Your task to perform on an android device: Open maps Image 0: 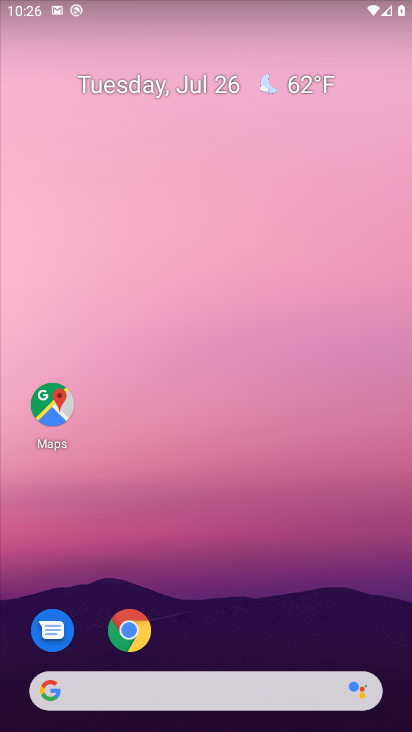
Step 0: press home button
Your task to perform on an android device: Open maps Image 1: 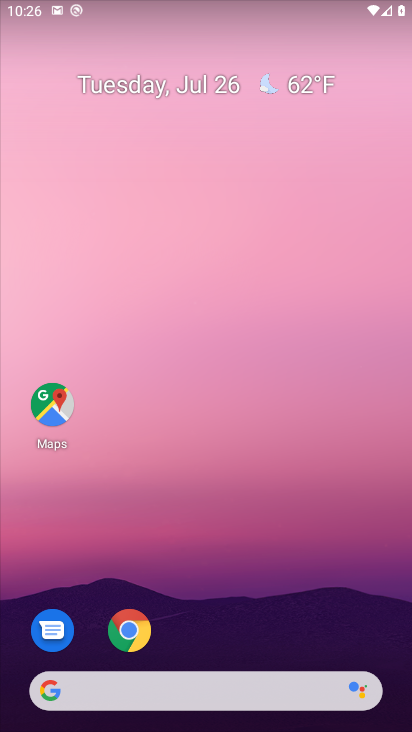
Step 1: click (51, 399)
Your task to perform on an android device: Open maps Image 2: 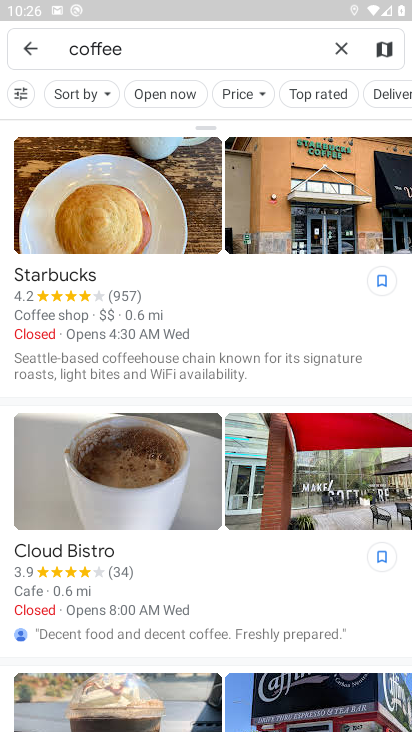
Step 2: click (26, 55)
Your task to perform on an android device: Open maps Image 3: 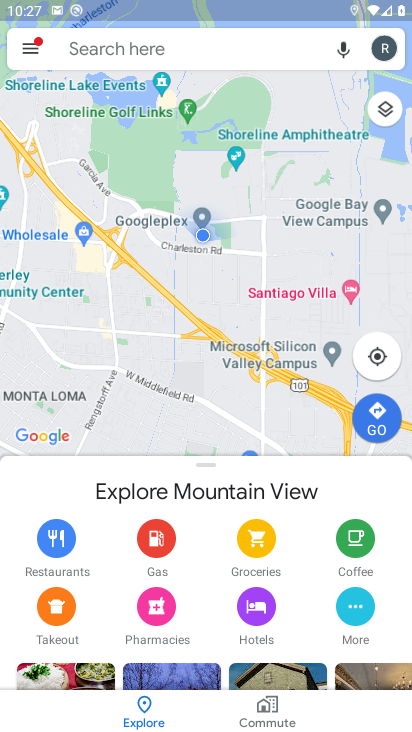
Step 3: task complete